Your task to perform on an android device: clear all cookies in the chrome app Image 0: 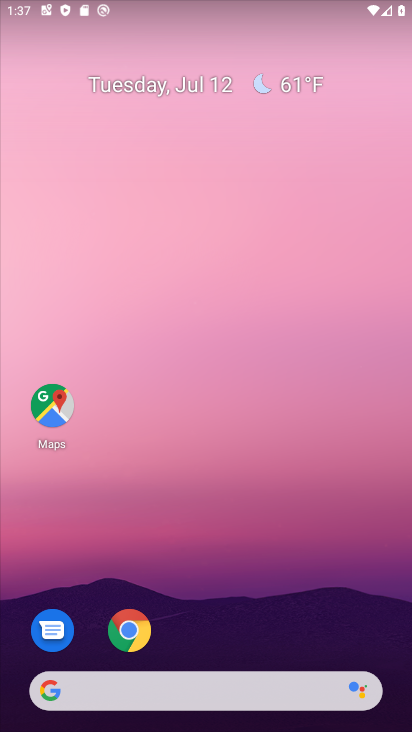
Step 0: click (121, 626)
Your task to perform on an android device: clear all cookies in the chrome app Image 1: 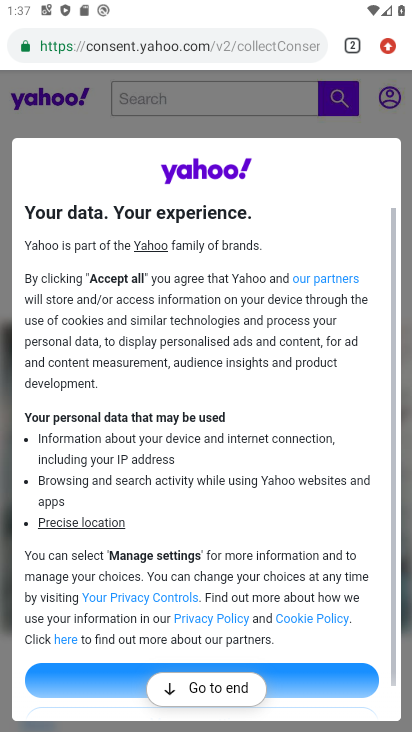
Step 1: click (386, 38)
Your task to perform on an android device: clear all cookies in the chrome app Image 2: 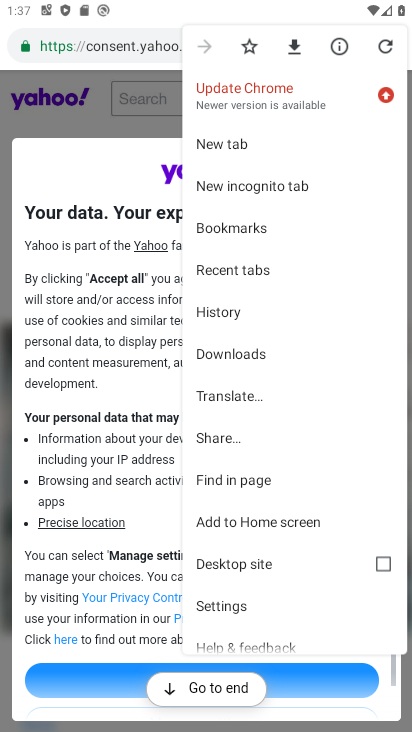
Step 2: click (242, 303)
Your task to perform on an android device: clear all cookies in the chrome app Image 3: 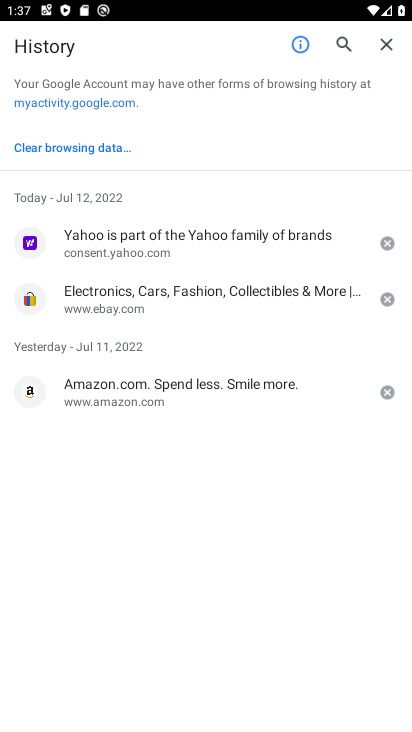
Step 3: click (77, 137)
Your task to perform on an android device: clear all cookies in the chrome app Image 4: 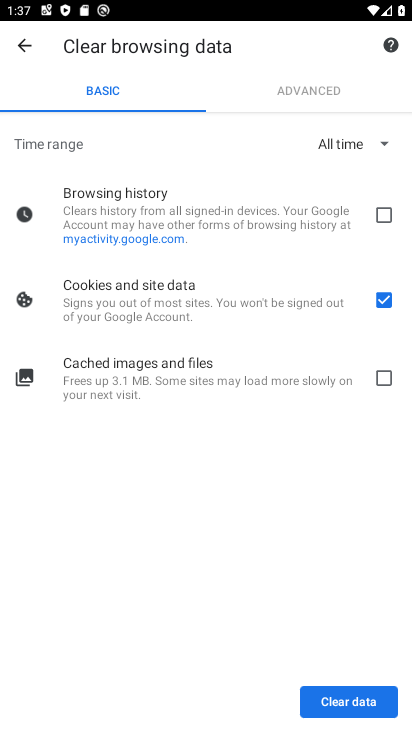
Step 4: click (383, 213)
Your task to perform on an android device: clear all cookies in the chrome app Image 5: 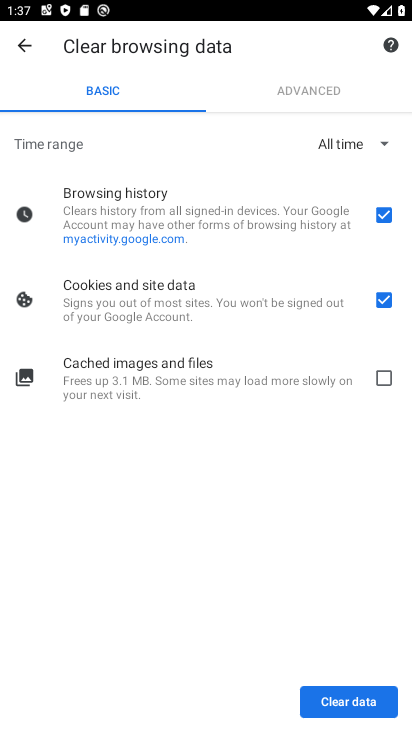
Step 5: click (383, 371)
Your task to perform on an android device: clear all cookies in the chrome app Image 6: 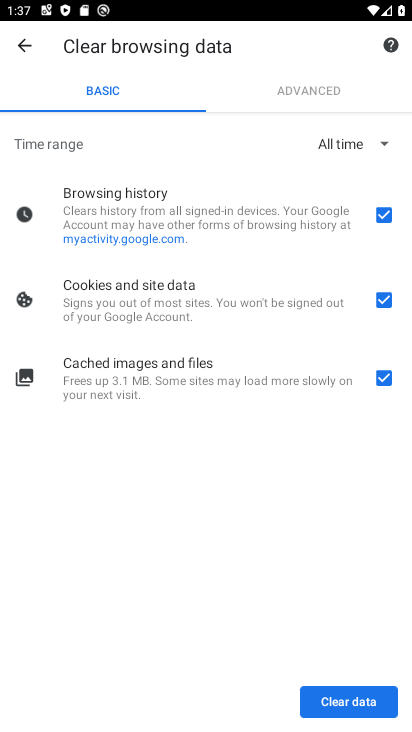
Step 6: click (340, 693)
Your task to perform on an android device: clear all cookies in the chrome app Image 7: 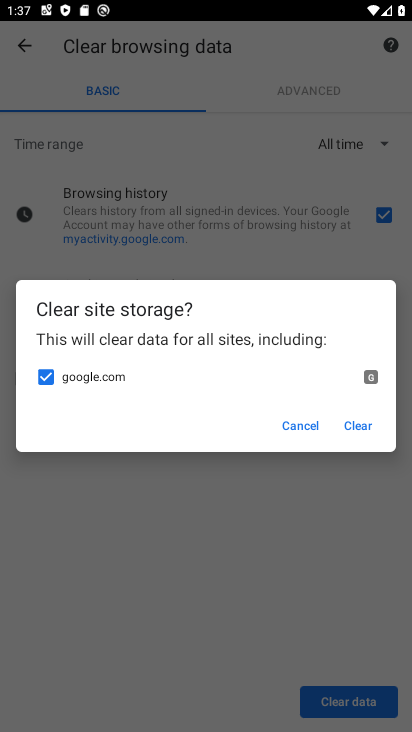
Step 7: click (354, 426)
Your task to perform on an android device: clear all cookies in the chrome app Image 8: 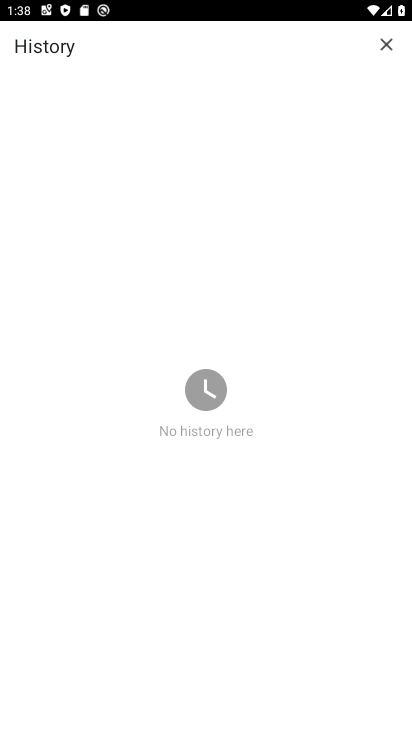
Step 8: task complete